Your task to perform on an android device: star an email in the gmail app Image 0: 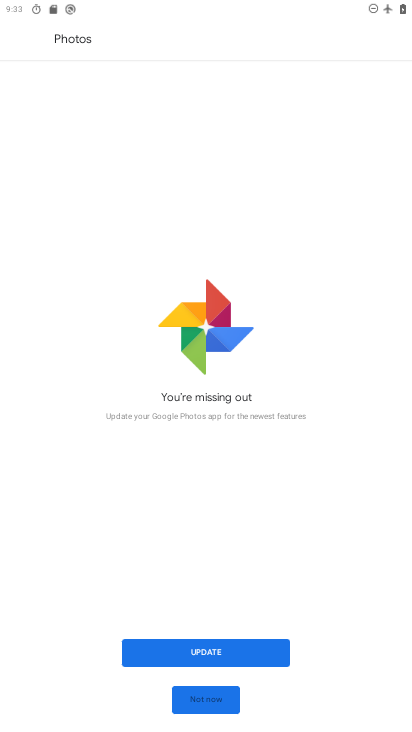
Step 0: press home button
Your task to perform on an android device: star an email in the gmail app Image 1: 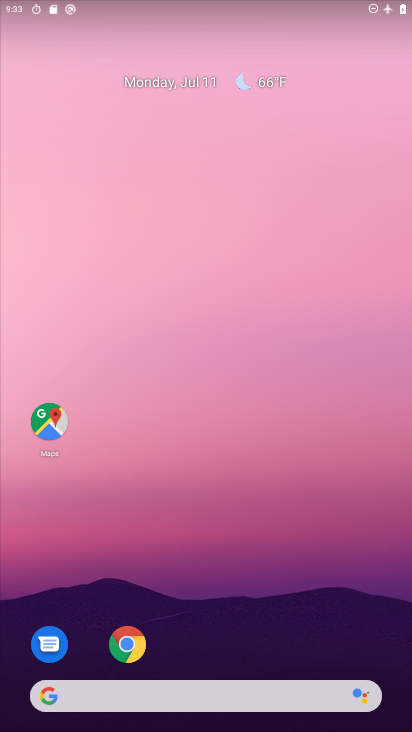
Step 1: drag from (330, 649) to (231, 148)
Your task to perform on an android device: star an email in the gmail app Image 2: 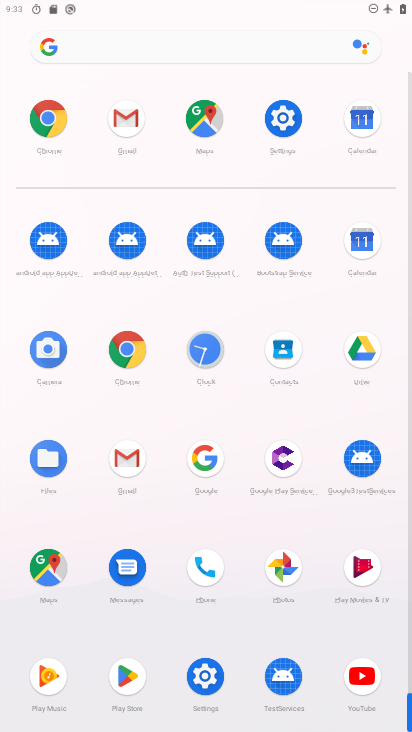
Step 2: click (131, 121)
Your task to perform on an android device: star an email in the gmail app Image 3: 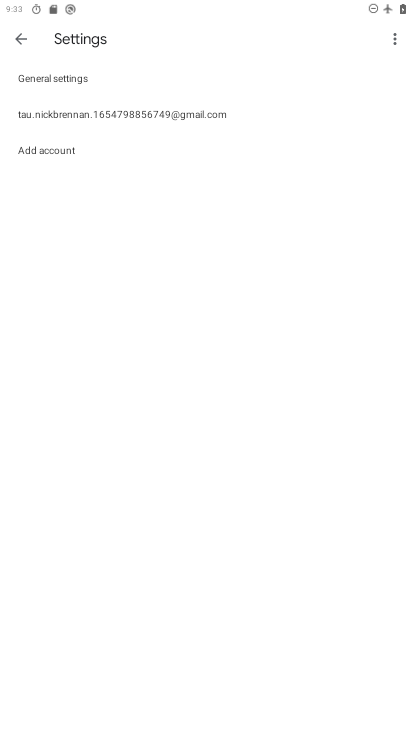
Step 3: click (19, 35)
Your task to perform on an android device: star an email in the gmail app Image 4: 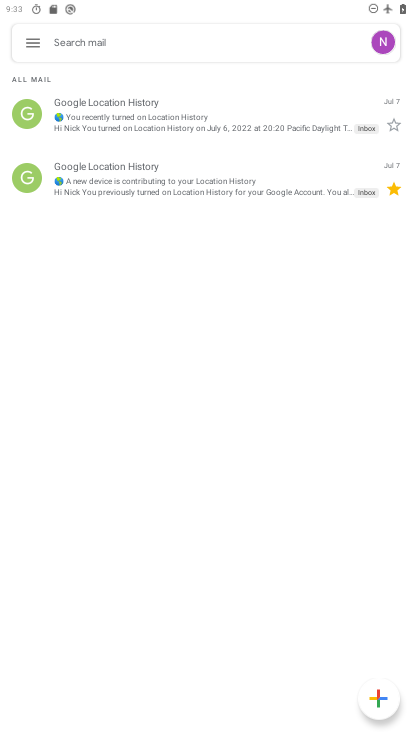
Step 4: click (395, 126)
Your task to perform on an android device: star an email in the gmail app Image 5: 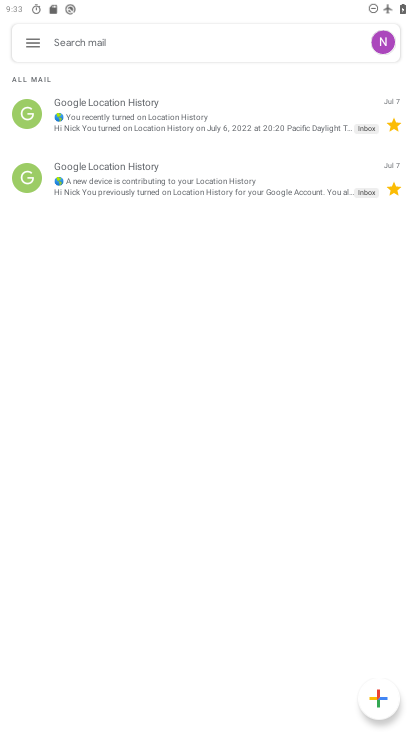
Step 5: task complete